Your task to perform on an android device: Show the shopping cart on amazon.com. Add "energizer triple a" to the cart on amazon.com, then select checkout. Image 0: 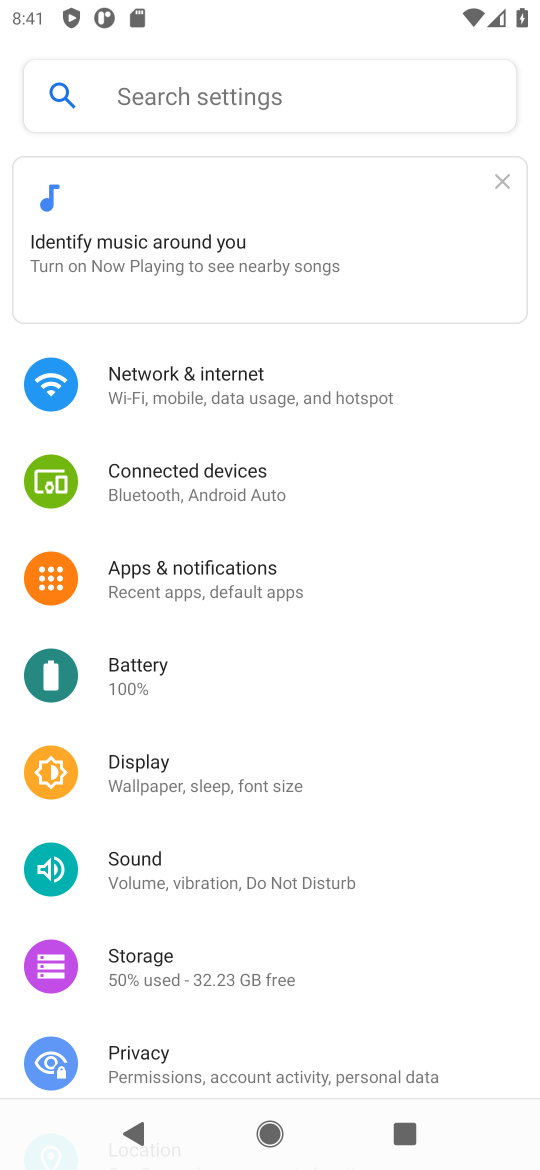
Step 0: press home button
Your task to perform on an android device: Show the shopping cart on amazon.com. Add "energizer triple a" to the cart on amazon.com, then select checkout. Image 1: 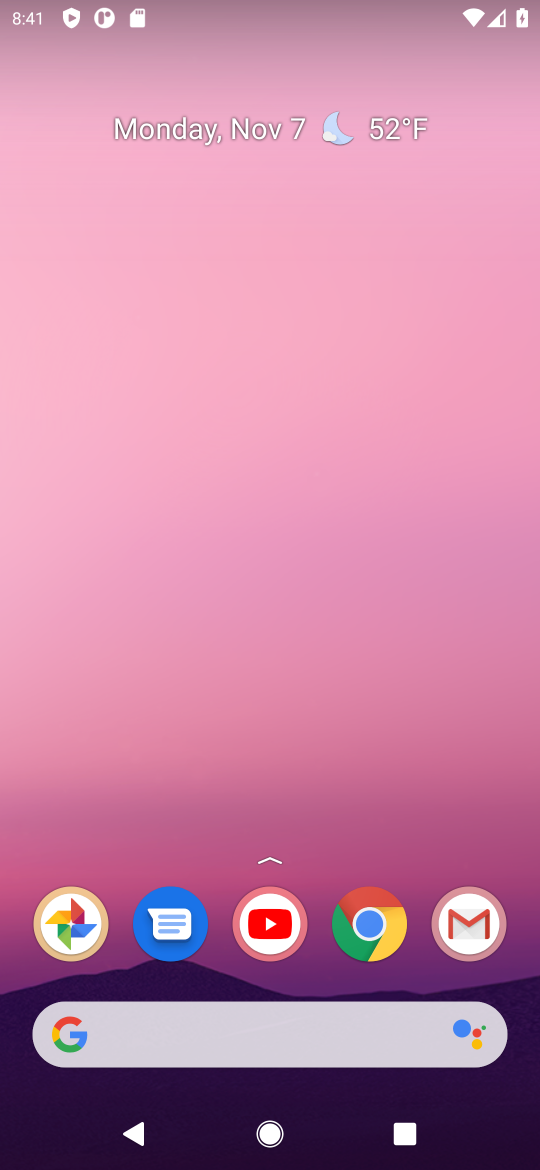
Step 1: click (361, 925)
Your task to perform on an android device: Show the shopping cart on amazon.com. Add "energizer triple a" to the cart on amazon.com, then select checkout. Image 2: 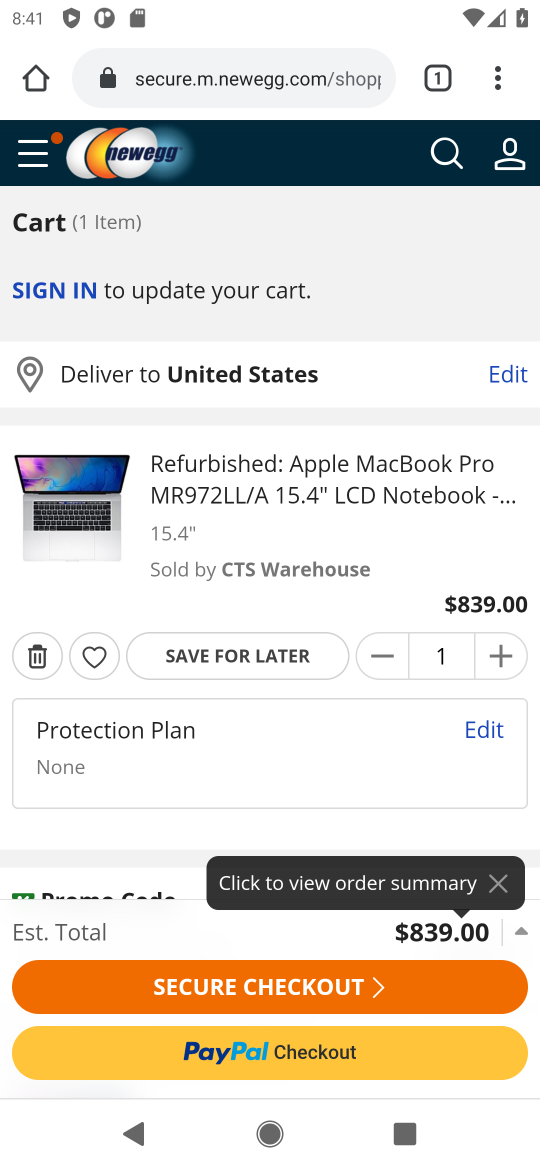
Step 2: click (209, 91)
Your task to perform on an android device: Show the shopping cart on amazon.com. Add "energizer triple a" to the cart on amazon.com, then select checkout. Image 3: 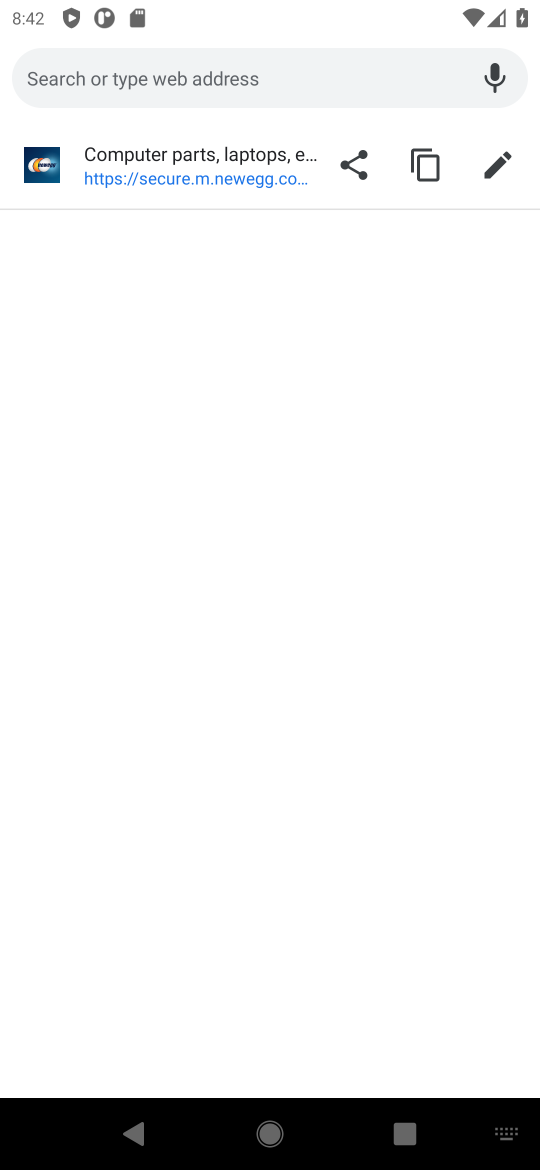
Step 3: type "amazon.com"
Your task to perform on an android device: Show the shopping cart on amazon.com. Add "energizer triple a" to the cart on amazon.com, then select checkout. Image 4: 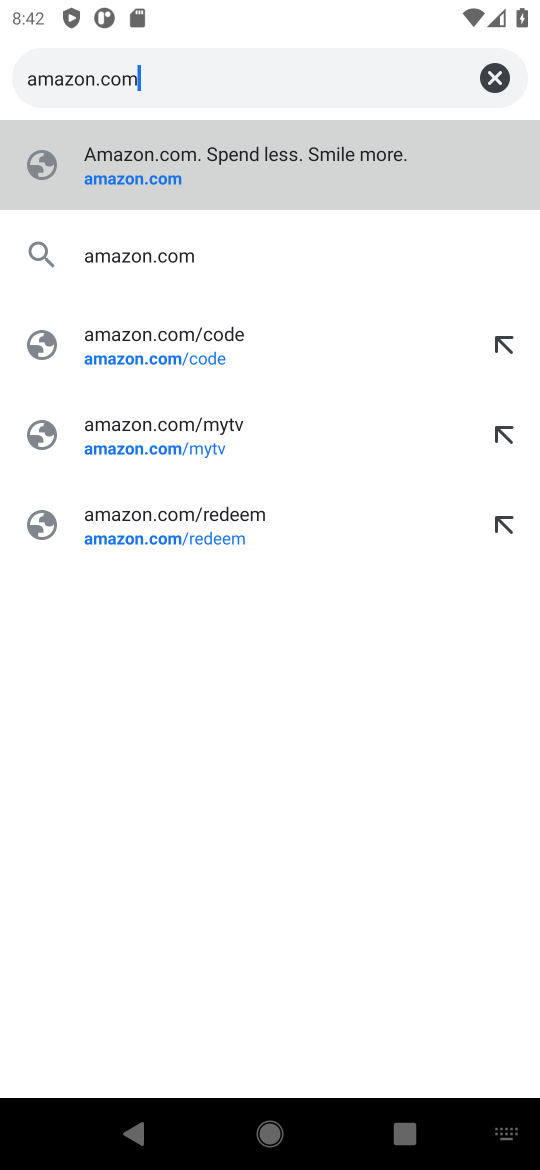
Step 4: click (219, 169)
Your task to perform on an android device: Show the shopping cart on amazon.com. Add "energizer triple a" to the cart on amazon.com, then select checkout. Image 5: 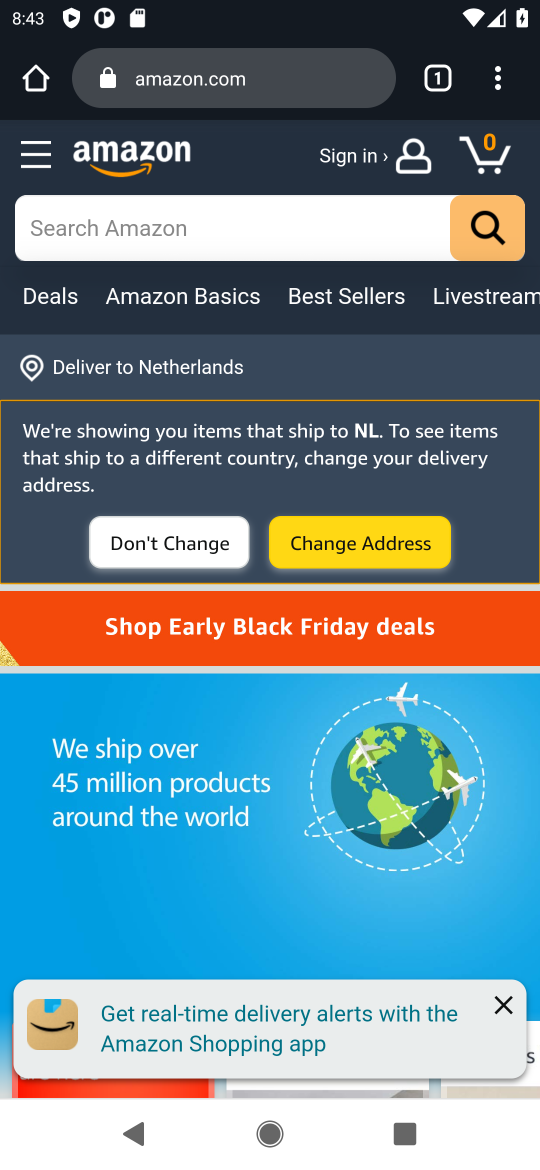
Step 5: click (226, 230)
Your task to perform on an android device: Show the shopping cart on amazon.com. Add "energizer triple a" to the cart on amazon.com, then select checkout. Image 6: 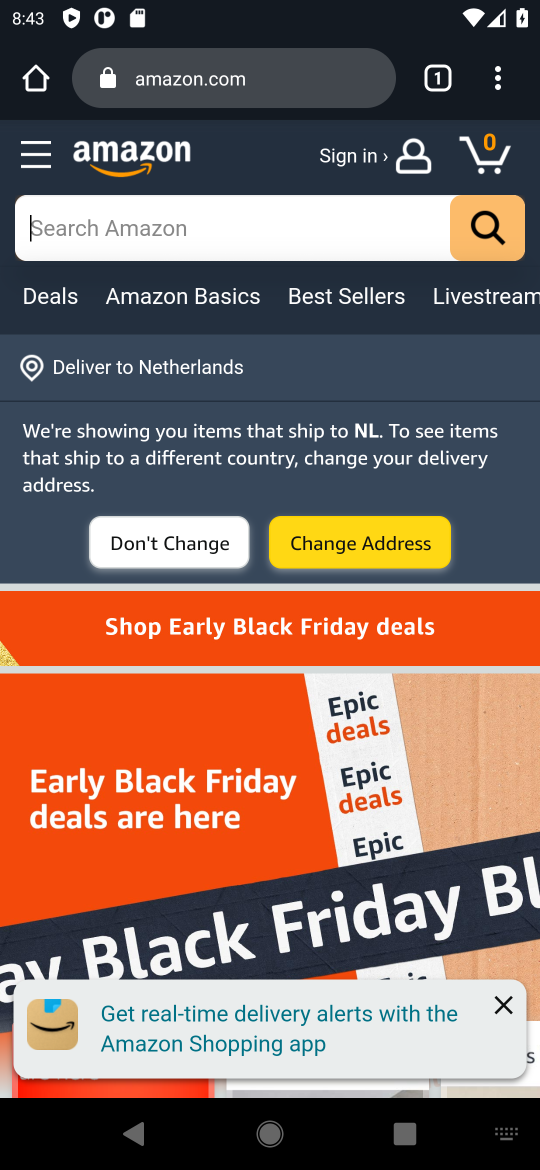
Step 6: type "energizer aaa"
Your task to perform on an android device: Show the shopping cart on amazon.com. Add "energizer triple a" to the cart on amazon.com, then select checkout. Image 7: 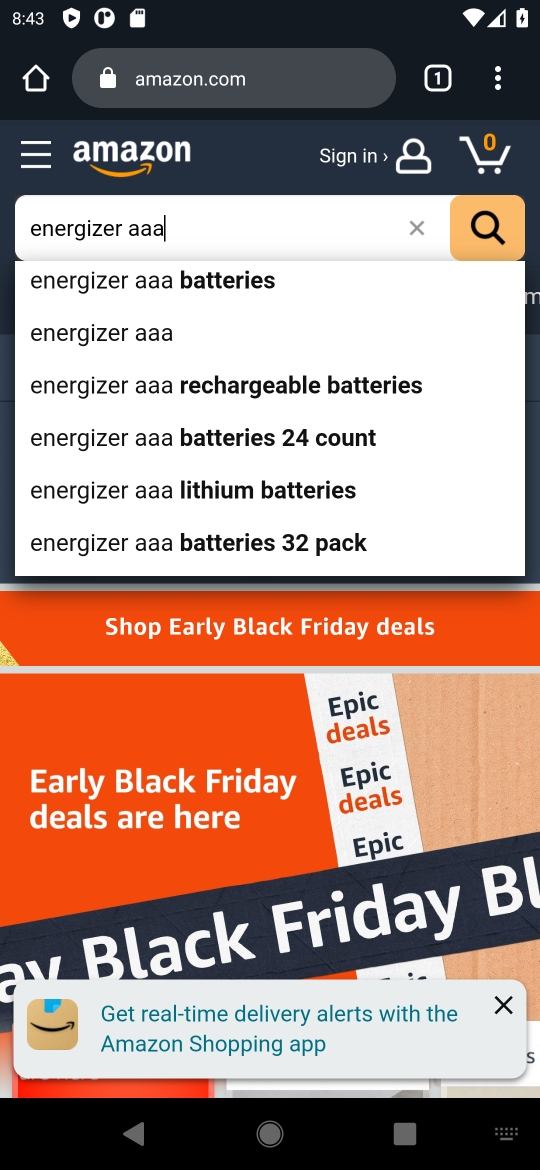
Step 7: press enter
Your task to perform on an android device: Show the shopping cart on amazon.com. Add "energizer triple a" to the cart on amazon.com, then select checkout. Image 8: 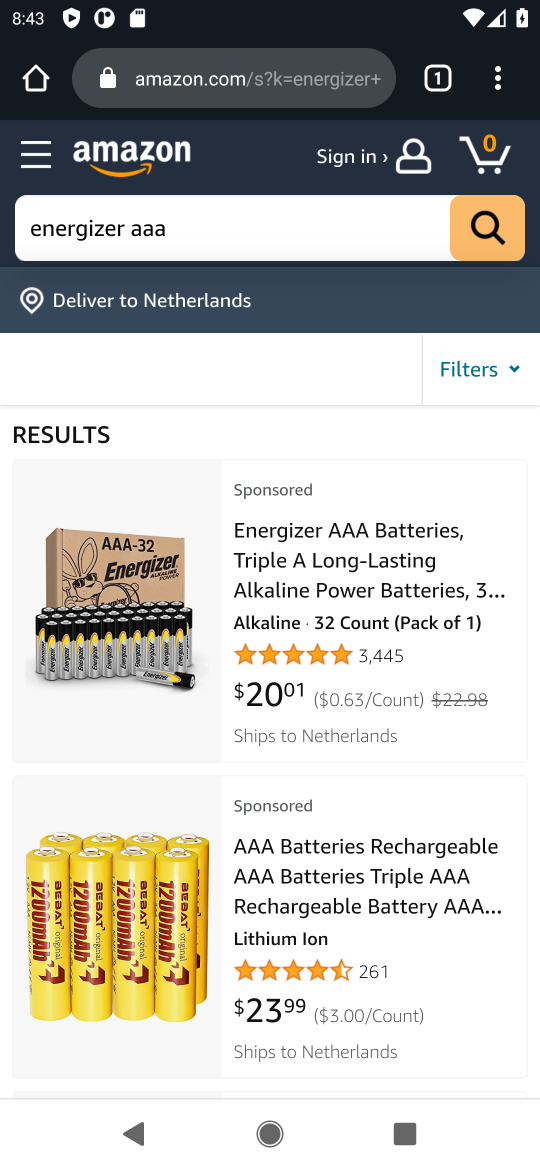
Step 8: click (317, 559)
Your task to perform on an android device: Show the shopping cart on amazon.com. Add "energizer triple a" to the cart on amazon.com, then select checkout. Image 9: 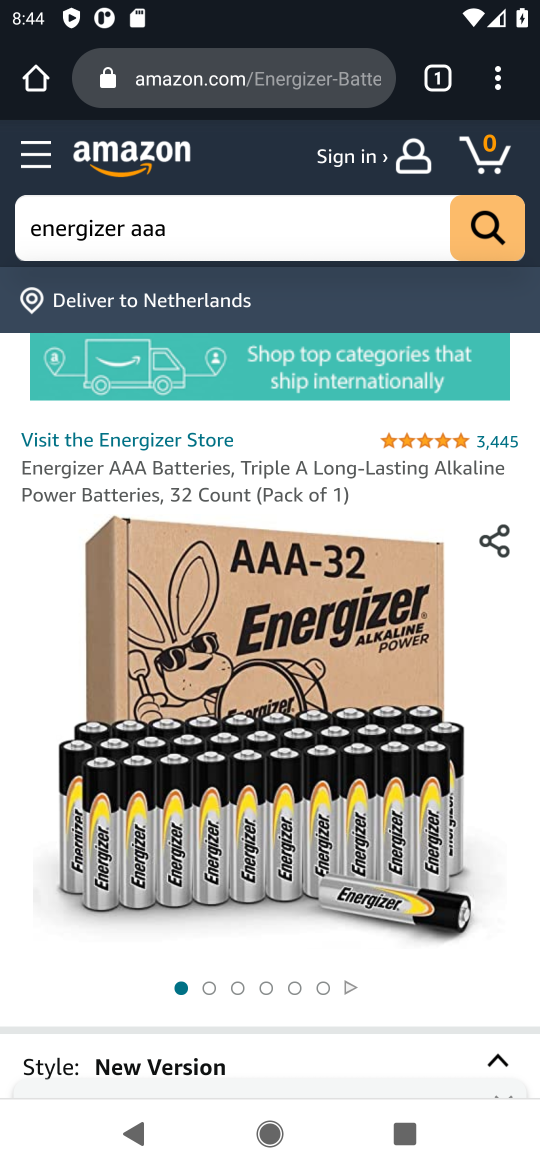
Step 9: click (137, 38)
Your task to perform on an android device: Show the shopping cart on amazon.com. Add "energizer triple a" to the cart on amazon.com, then select checkout. Image 10: 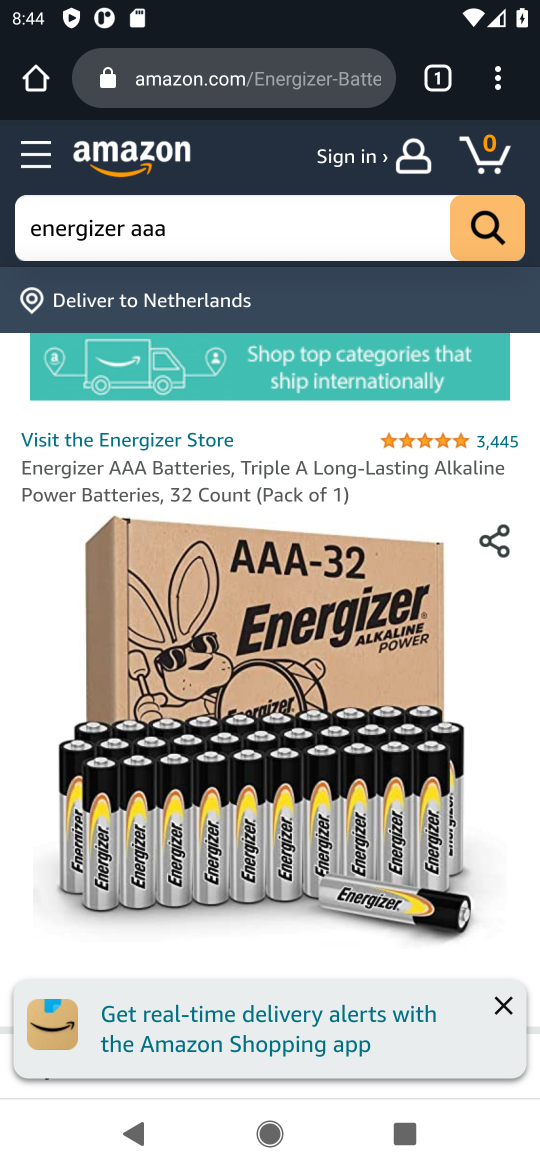
Step 10: drag from (326, 914) to (199, 461)
Your task to perform on an android device: Show the shopping cart on amazon.com. Add "energizer triple a" to the cart on amazon.com, then select checkout. Image 11: 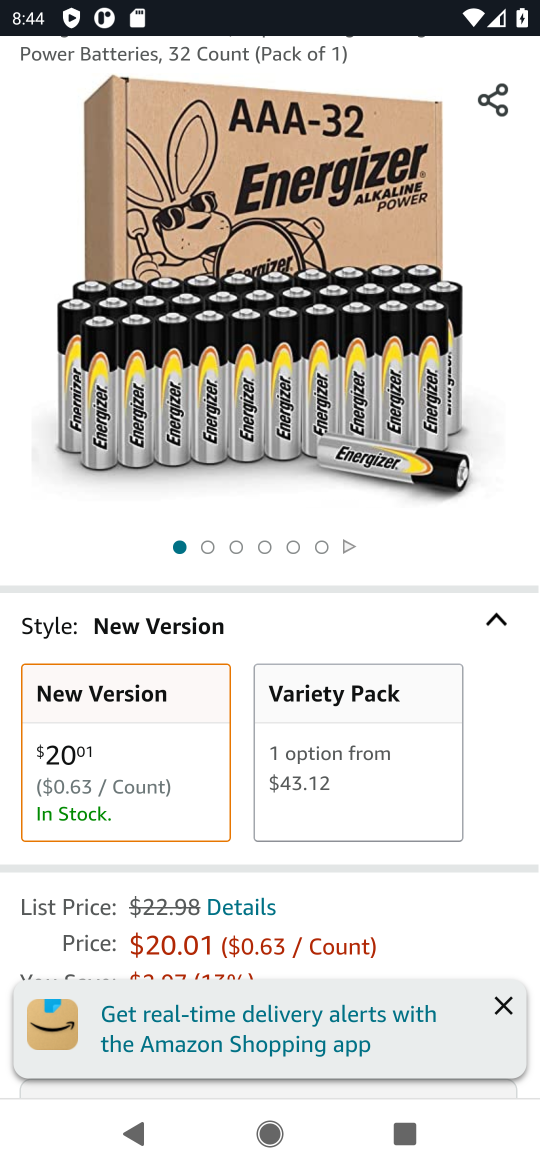
Step 11: drag from (278, 991) to (121, 521)
Your task to perform on an android device: Show the shopping cart on amazon.com. Add "energizer triple a" to the cart on amazon.com, then select checkout. Image 12: 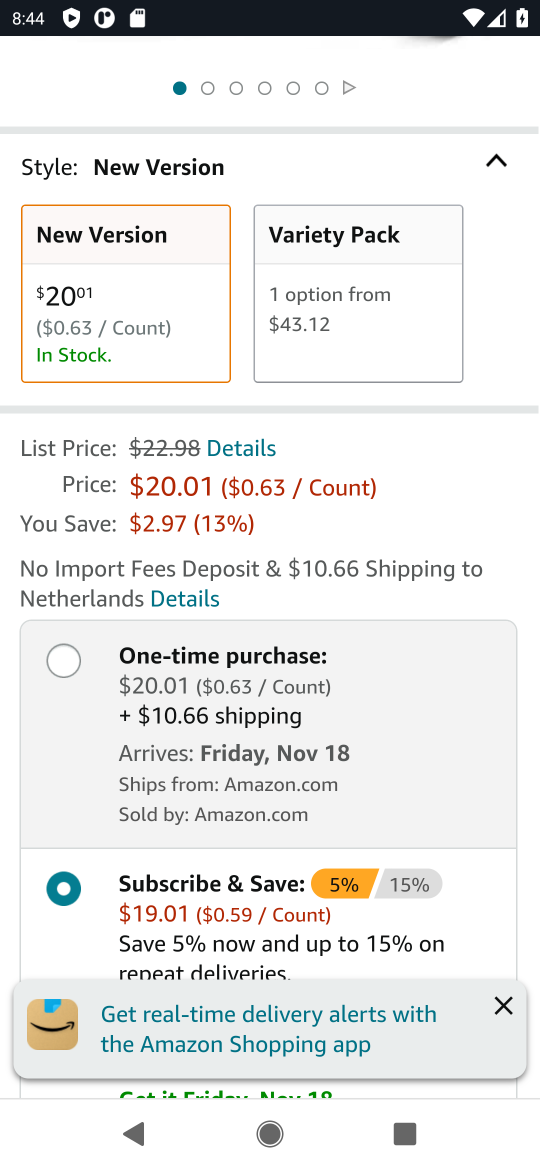
Step 12: drag from (220, 874) to (95, 152)
Your task to perform on an android device: Show the shopping cart on amazon.com. Add "energizer triple a" to the cart on amazon.com, then select checkout. Image 13: 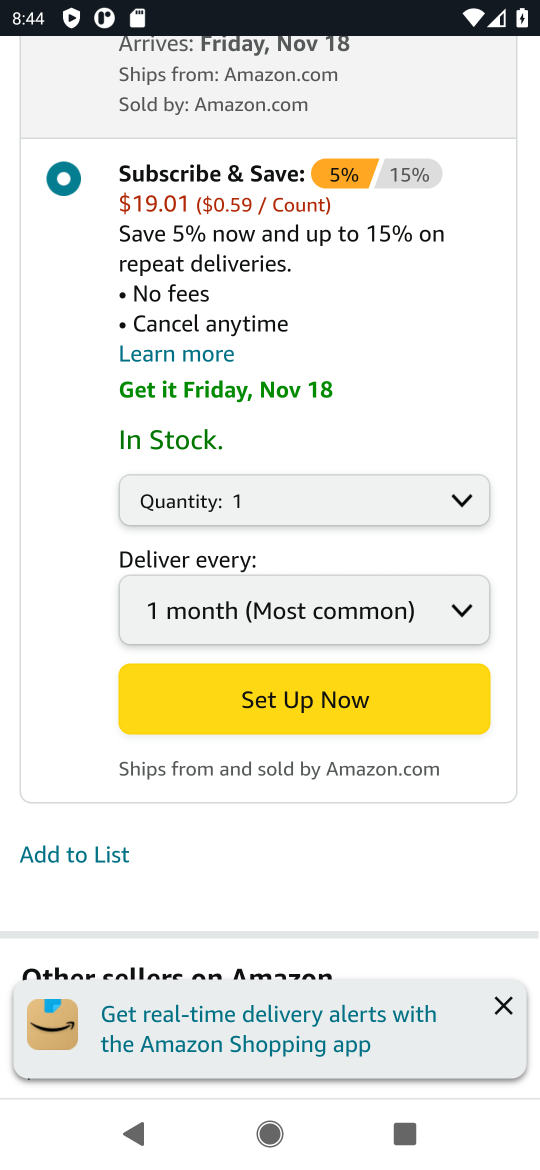
Step 13: click (294, 792)
Your task to perform on an android device: Show the shopping cart on amazon.com. Add "energizer triple a" to the cart on amazon.com, then select checkout. Image 14: 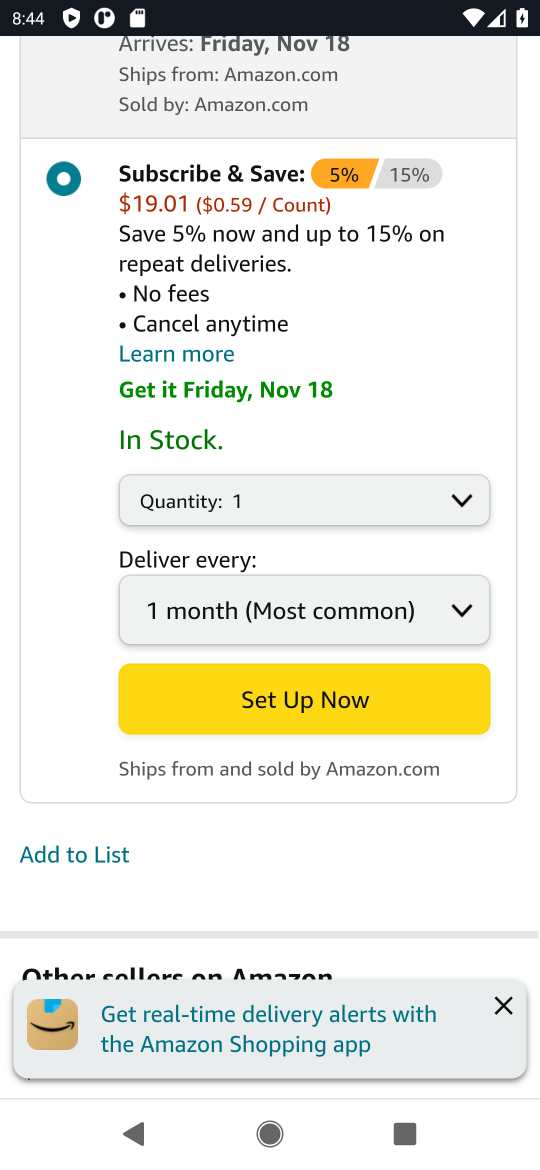
Step 14: drag from (275, 792) to (57, 256)
Your task to perform on an android device: Show the shopping cart on amazon.com. Add "energizer triple a" to the cart on amazon.com, then select checkout. Image 15: 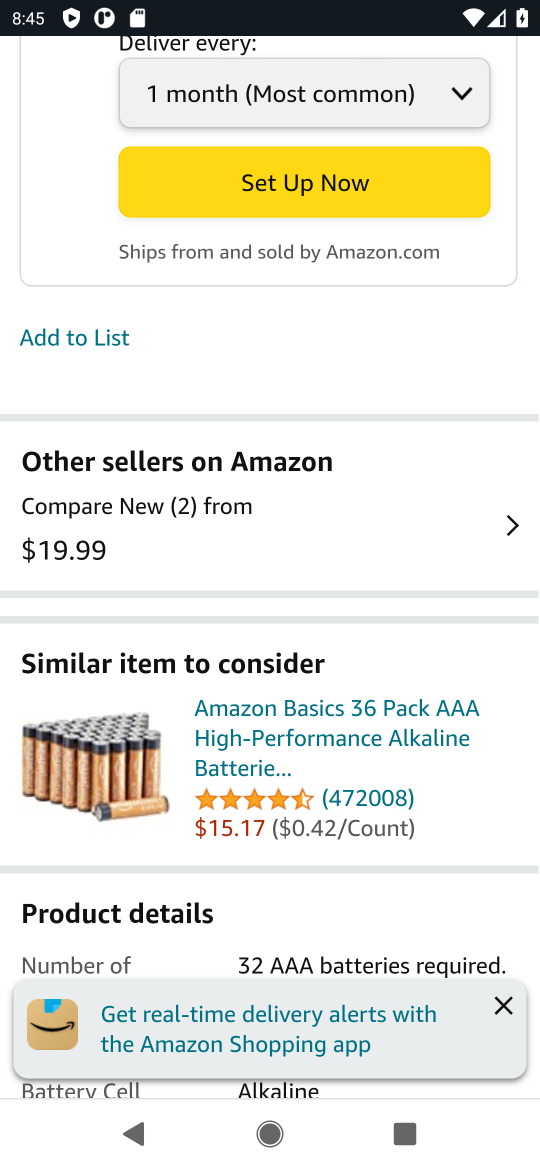
Step 15: click (306, 188)
Your task to perform on an android device: Show the shopping cart on amazon.com. Add "energizer triple a" to the cart on amazon.com, then select checkout. Image 16: 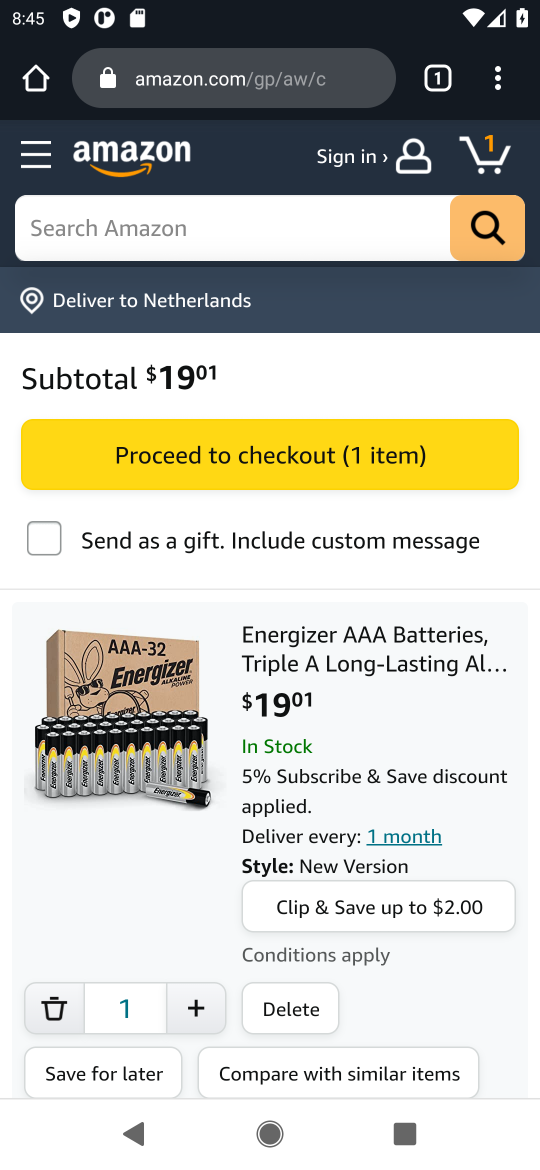
Step 16: task complete